Your task to perform on an android device: turn off smart reply in the gmail app Image 0: 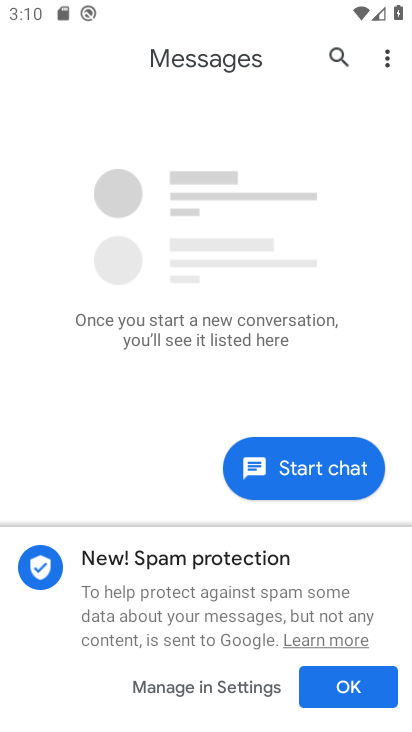
Step 0: press home button
Your task to perform on an android device: turn off smart reply in the gmail app Image 1: 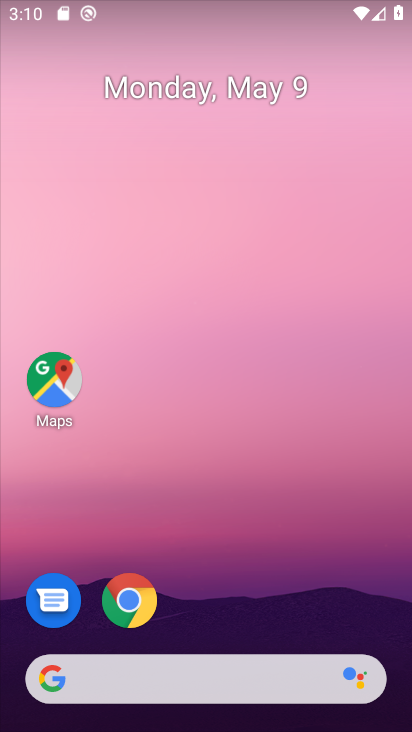
Step 1: drag from (320, 602) to (266, 114)
Your task to perform on an android device: turn off smart reply in the gmail app Image 2: 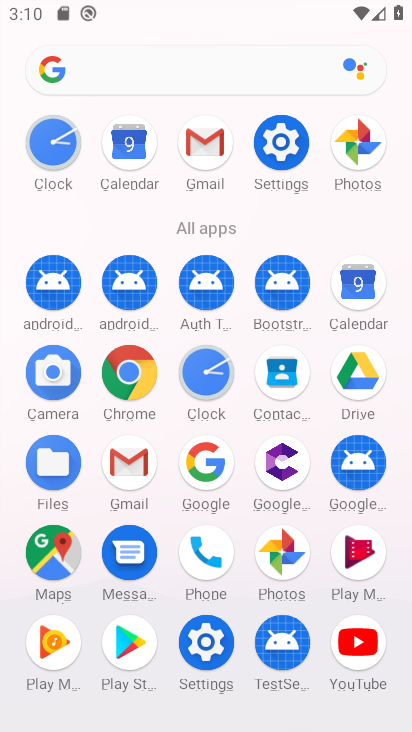
Step 2: click (109, 481)
Your task to perform on an android device: turn off smart reply in the gmail app Image 3: 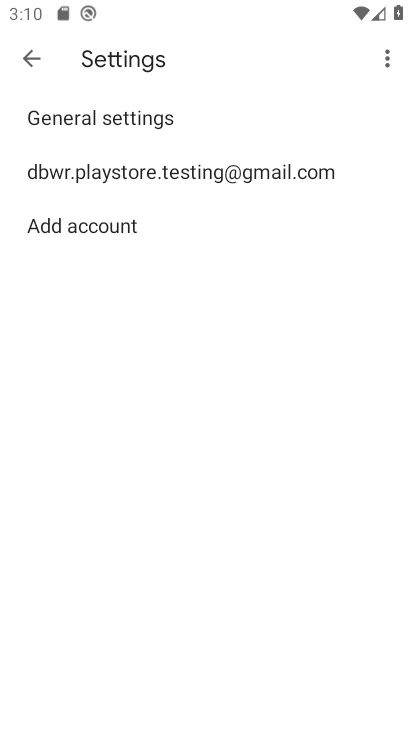
Step 3: click (181, 175)
Your task to perform on an android device: turn off smart reply in the gmail app Image 4: 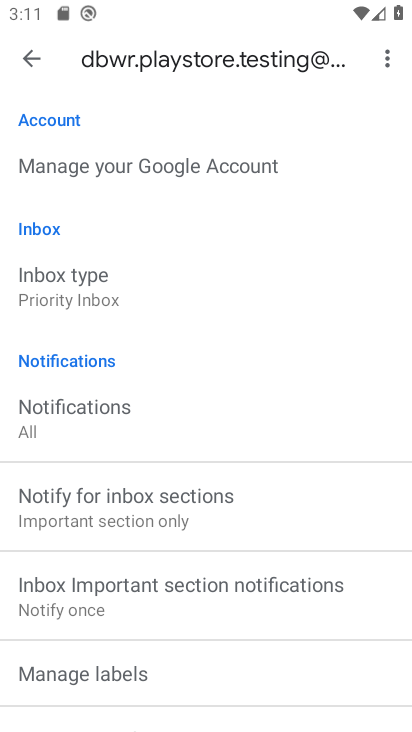
Step 4: drag from (179, 566) to (206, 287)
Your task to perform on an android device: turn off smart reply in the gmail app Image 5: 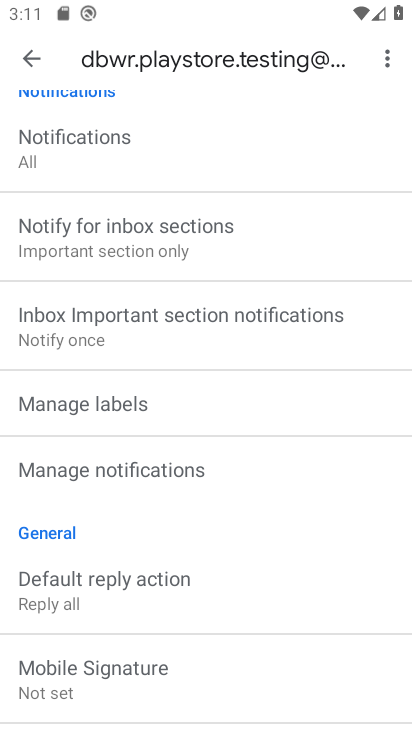
Step 5: drag from (240, 631) to (249, 326)
Your task to perform on an android device: turn off smart reply in the gmail app Image 6: 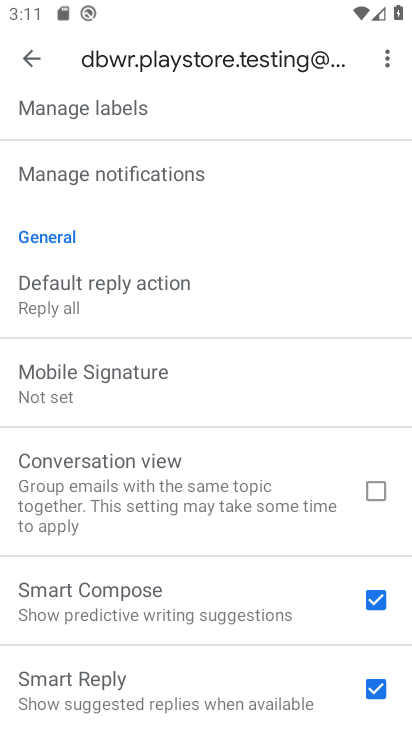
Step 6: drag from (228, 588) to (234, 420)
Your task to perform on an android device: turn off smart reply in the gmail app Image 7: 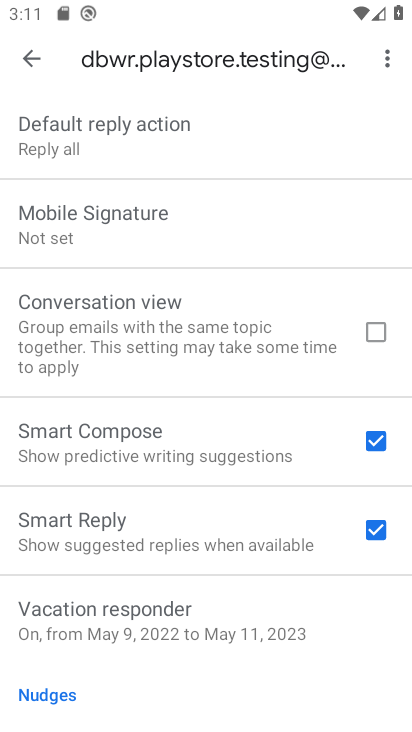
Step 7: click (366, 534)
Your task to perform on an android device: turn off smart reply in the gmail app Image 8: 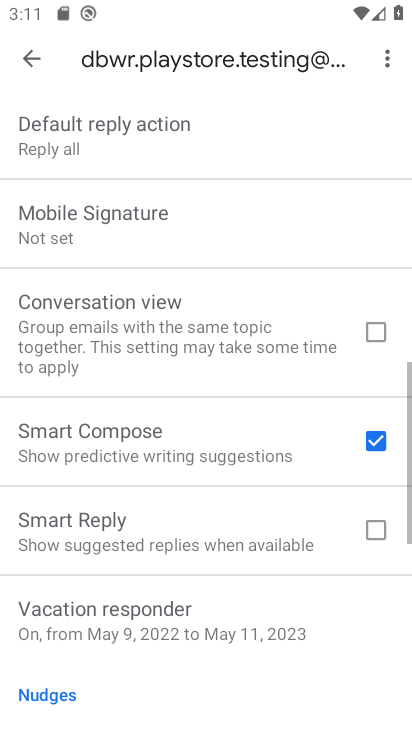
Step 8: task complete